Your task to perform on an android device: What's the news in India? Image 0: 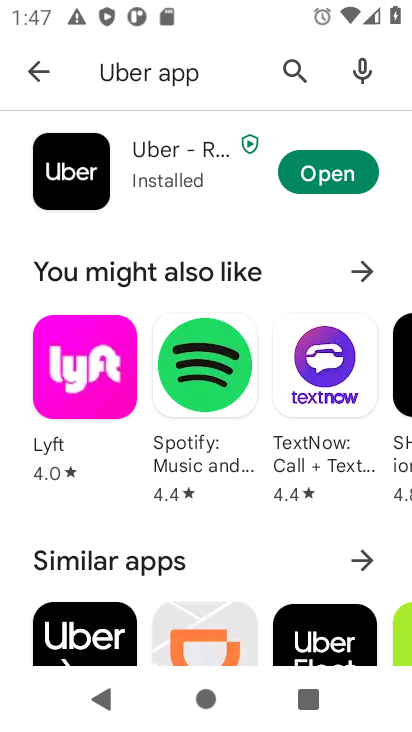
Step 0: press home button
Your task to perform on an android device: What's the news in India? Image 1: 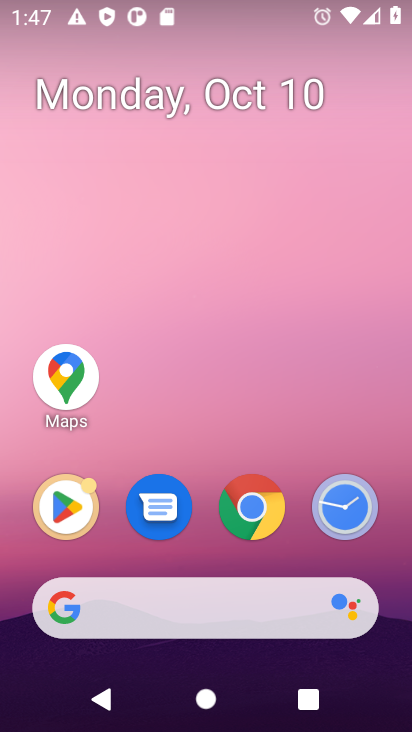
Step 1: click (236, 605)
Your task to perform on an android device: What's the news in India? Image 2: 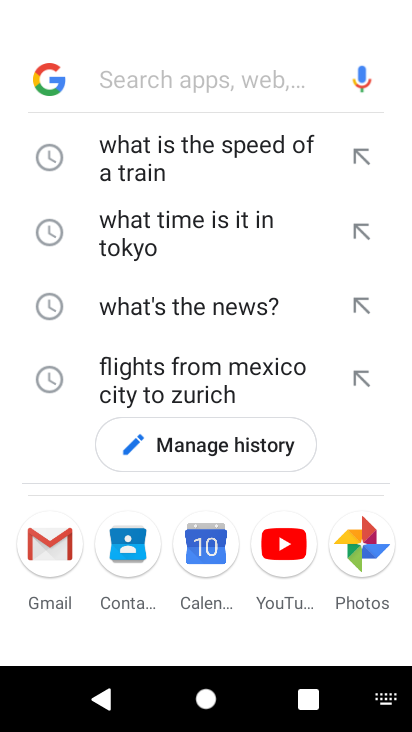
Step 2: type "What's the news in India"
Your task to perform on an android device: What's the news in India? Image 3: 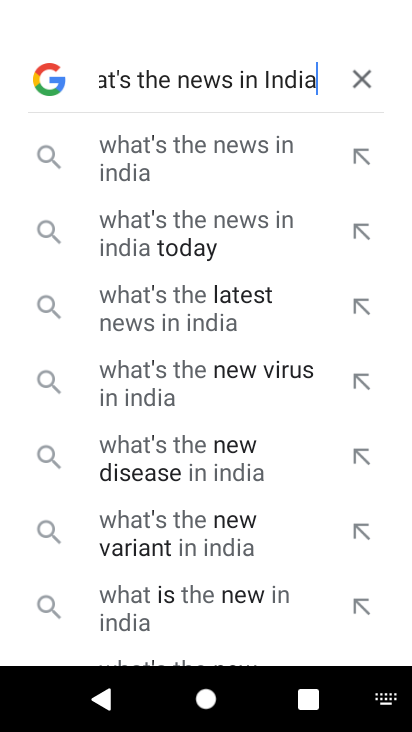
Step 3: press enter
Your task to perform on an android device: What's the news in India? Image 4: 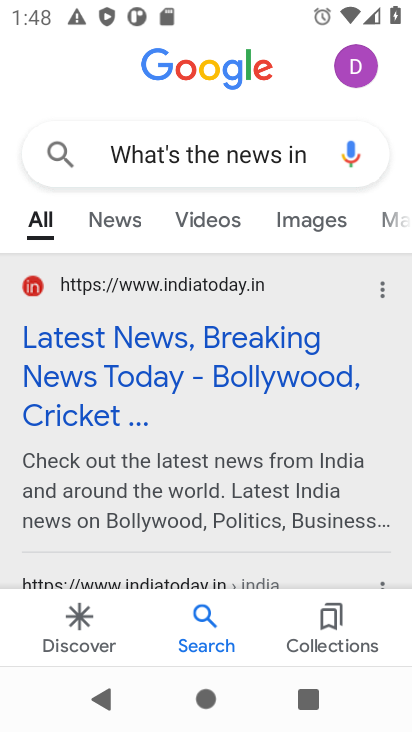
Step 4: click (252, 349)
Your task to perform on an android device: What's the news in India? Image 5: 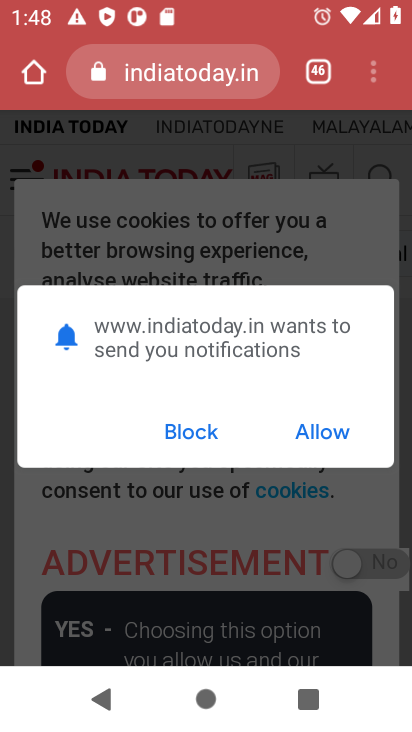
Step 5: drag from (256, 483) to (262, 388)
Your task to perform on an android device: What's the news in India? Image 6: 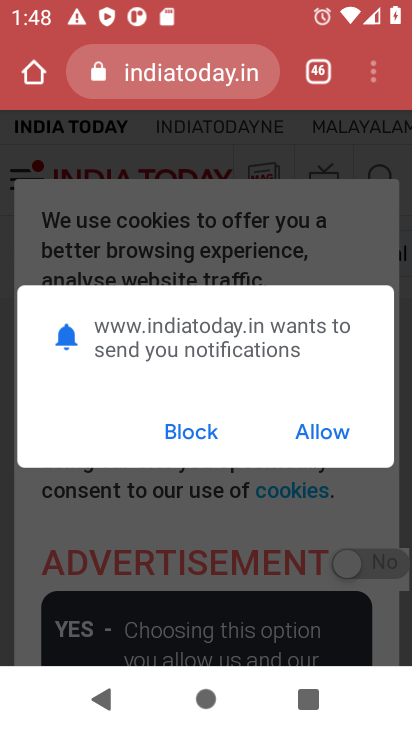
Step 6: click (170, 429)
Your task to perform on an android device: What's the news in India? Image 7: 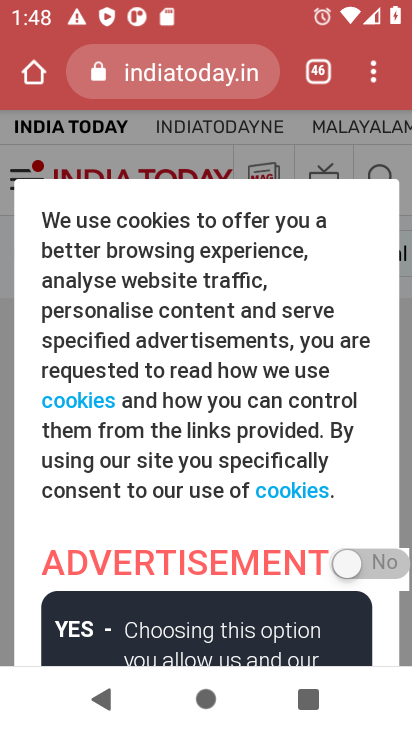
Step 7: drag from (209, 500) to (216, 277)
Your task to perform on an android device: What's the news in India? Image 8: 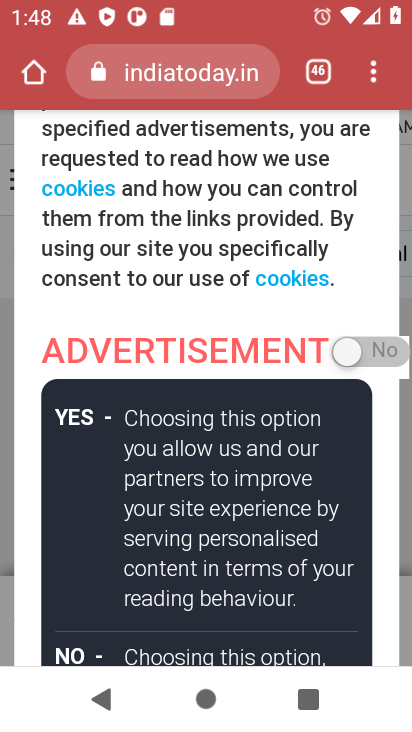
Step 8: drag from (247, 546) to (229, 246)
Your task to perform on an android device: What's the news in India? Image 9: 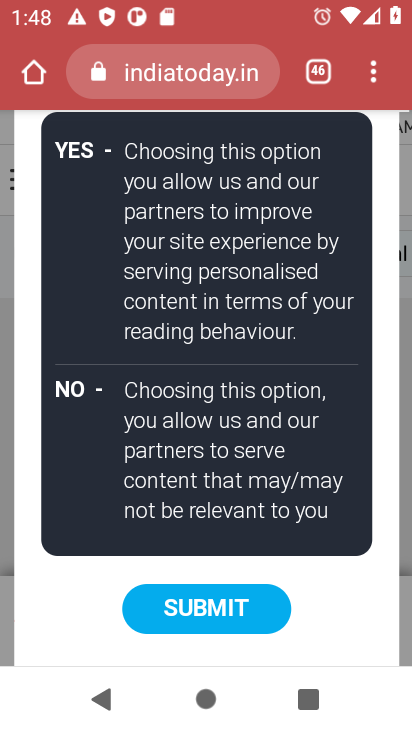
Step 9: drag from (302, 635) to (315, 337)
Your task to perform on an android device: What's the news in India? Image 10: 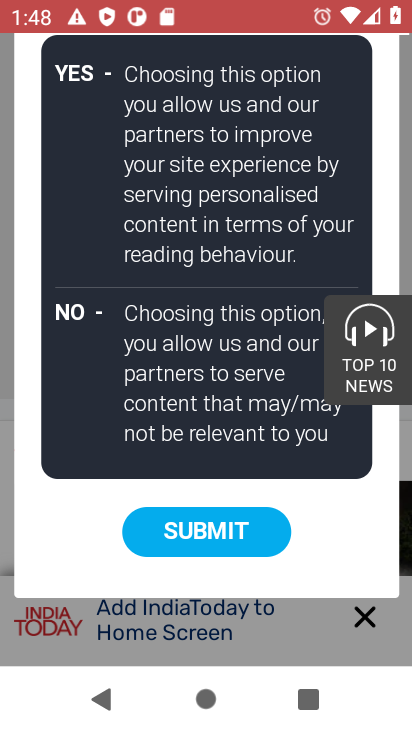
Step 10: click (230, 542)
Your task to perform on an android device: What's the news in India? Image 11: 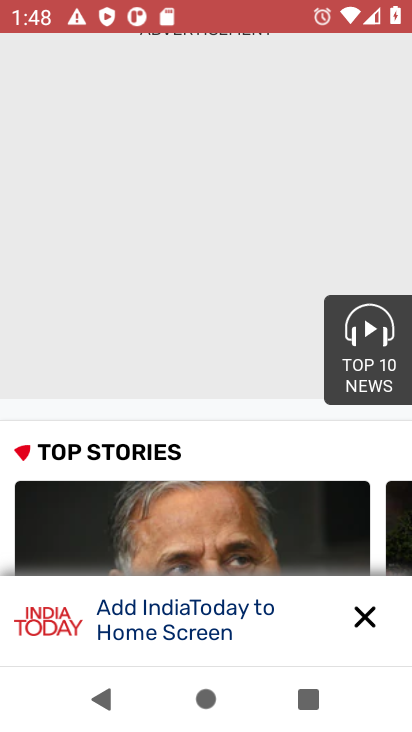
Step 11: task complete